Your task to perform on an android device: turn off wifi Image 0: 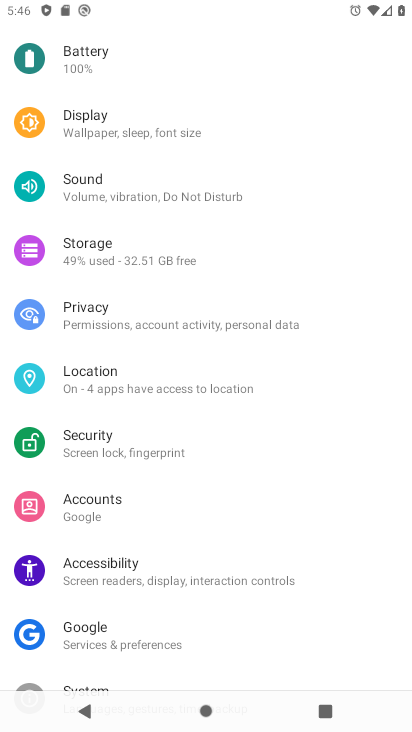
Step 0: drag from (299, 12) to (302, 394)
Your task to perform on an android device: turn off wifi Image 1: 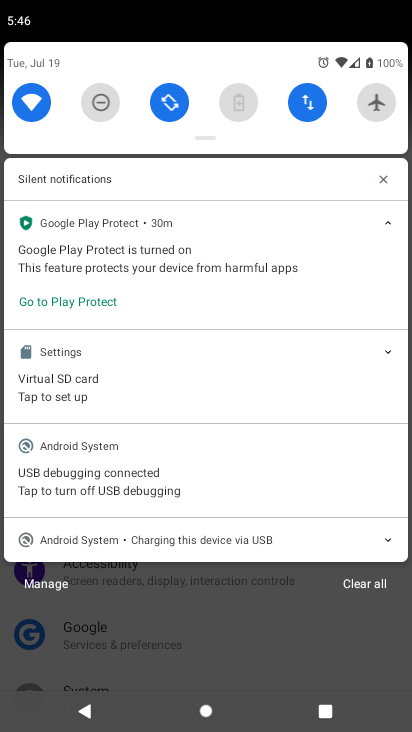
Step 1: click (21, 96)
Your task to perform on an android device: turn off wifi Image 2: 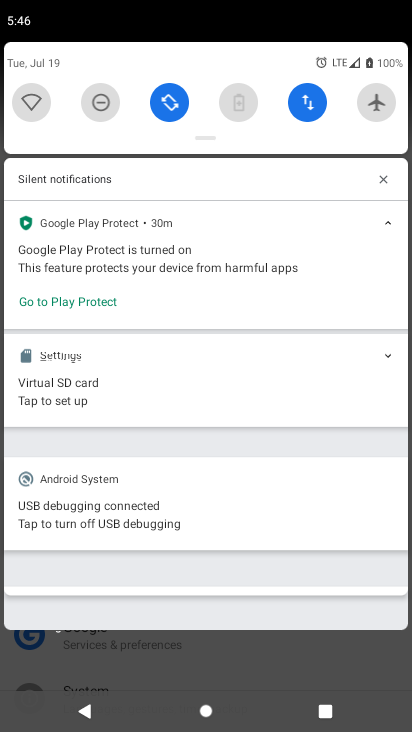
Step 2: task complete